Your task to perform on an android device: Go to Maps Image 0: 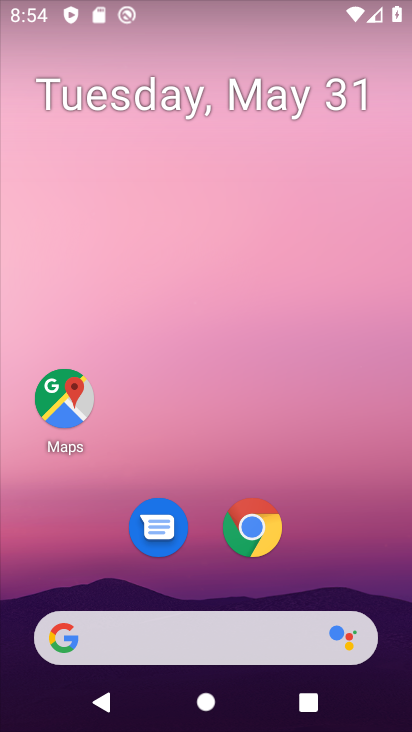
Step 0: click (203, 245)
Your task to perform on an android device: Go to Maps Image 1: 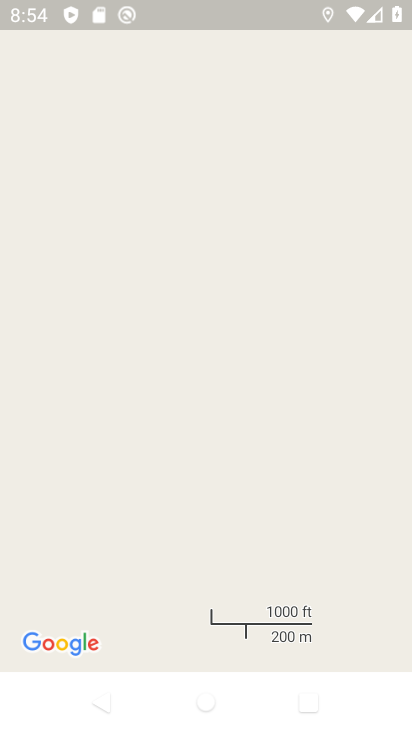
Step 1: press home button
Your task to perform on an android device: Go to Maps Image 2: 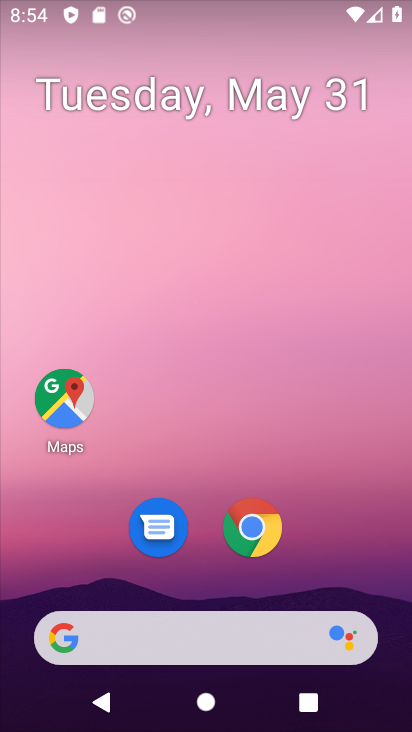
Step 2: drag from (212, 576) to (148, 305)
Your task to perform on an android device: Go to Maps Image 3: 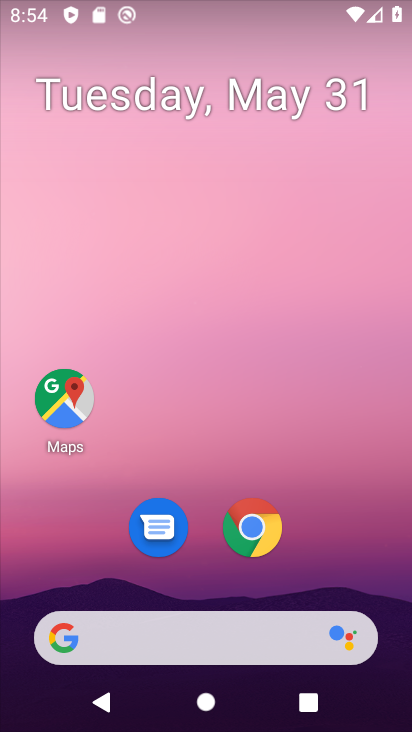
Step 3: drag from (215, 560) to (211, 105)
Your task to perform on an android device: Go to Maps Image 4: 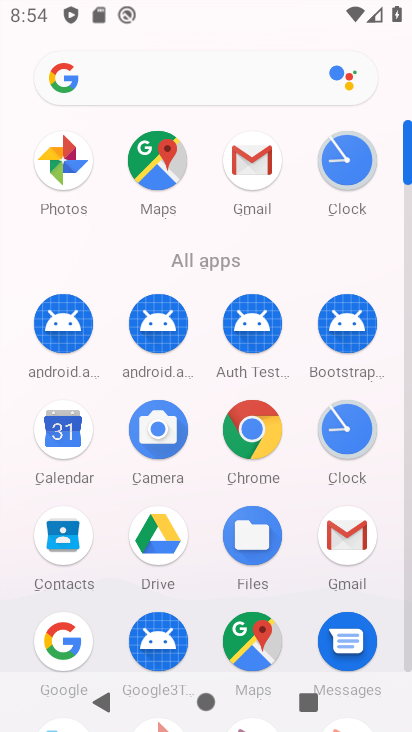
Step 4: drag from (225, 539) to (228, 277)
Your task to perform on an android device: Go to Maps Image 5: 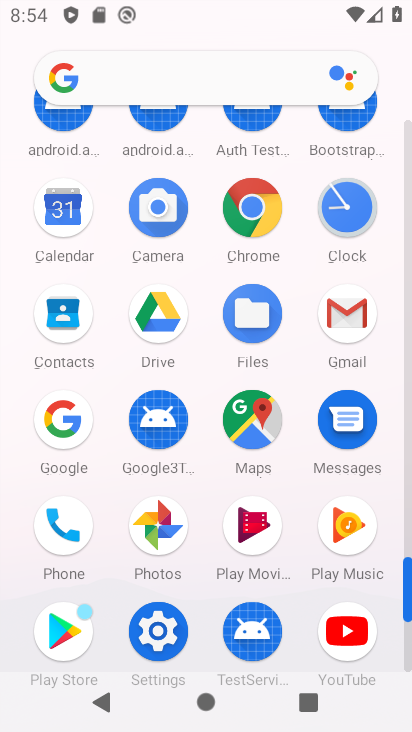
Step 5: drag from (257, 189) to (260, 507)
Your task to perform on an android device: Go to Maps Image 6: 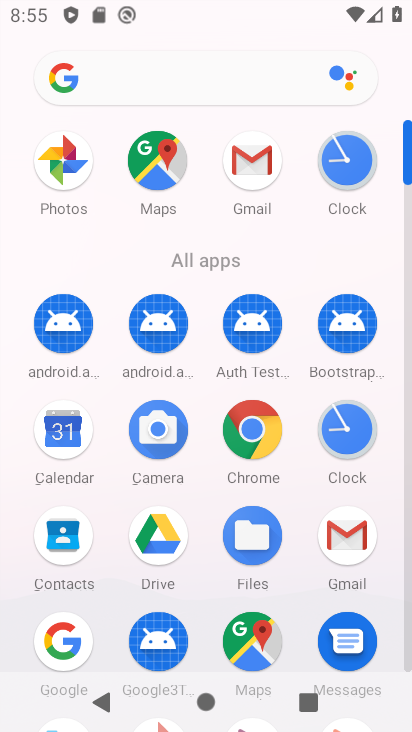
Step 6: click (250, 637)
Your task to perform on an android device: Go to Maps Image 7: 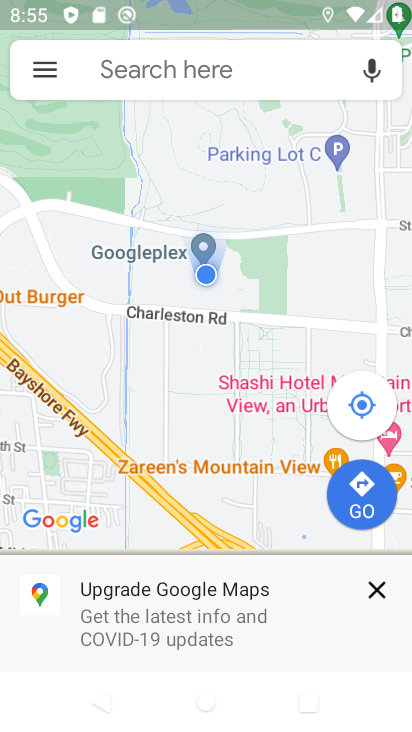
Step 7: task complete